Your task to perform on an android device: open app "McDonald's" (install if not already installed) Image 0: 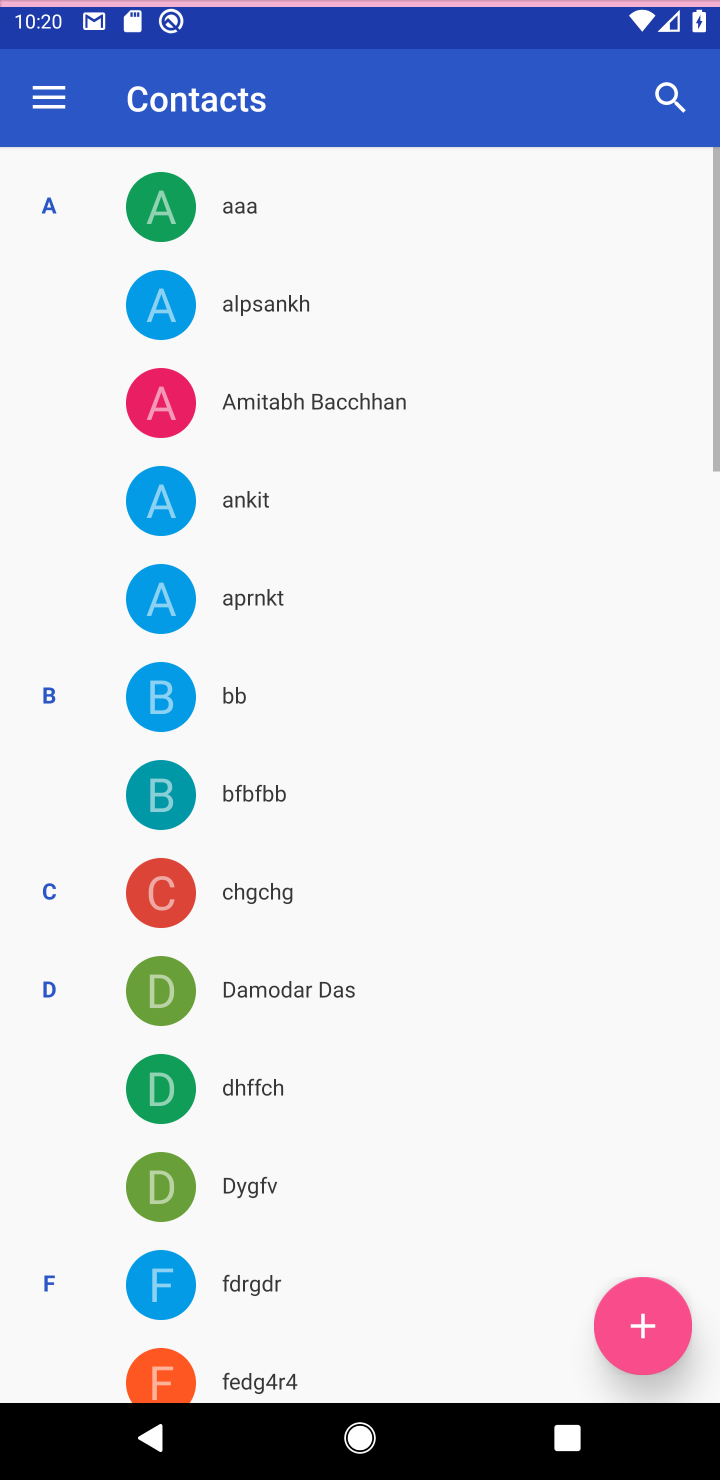
Step 0: press home button
Your task to perform on an android device: open app "McDonald's" (install if not already installed) Image 1: 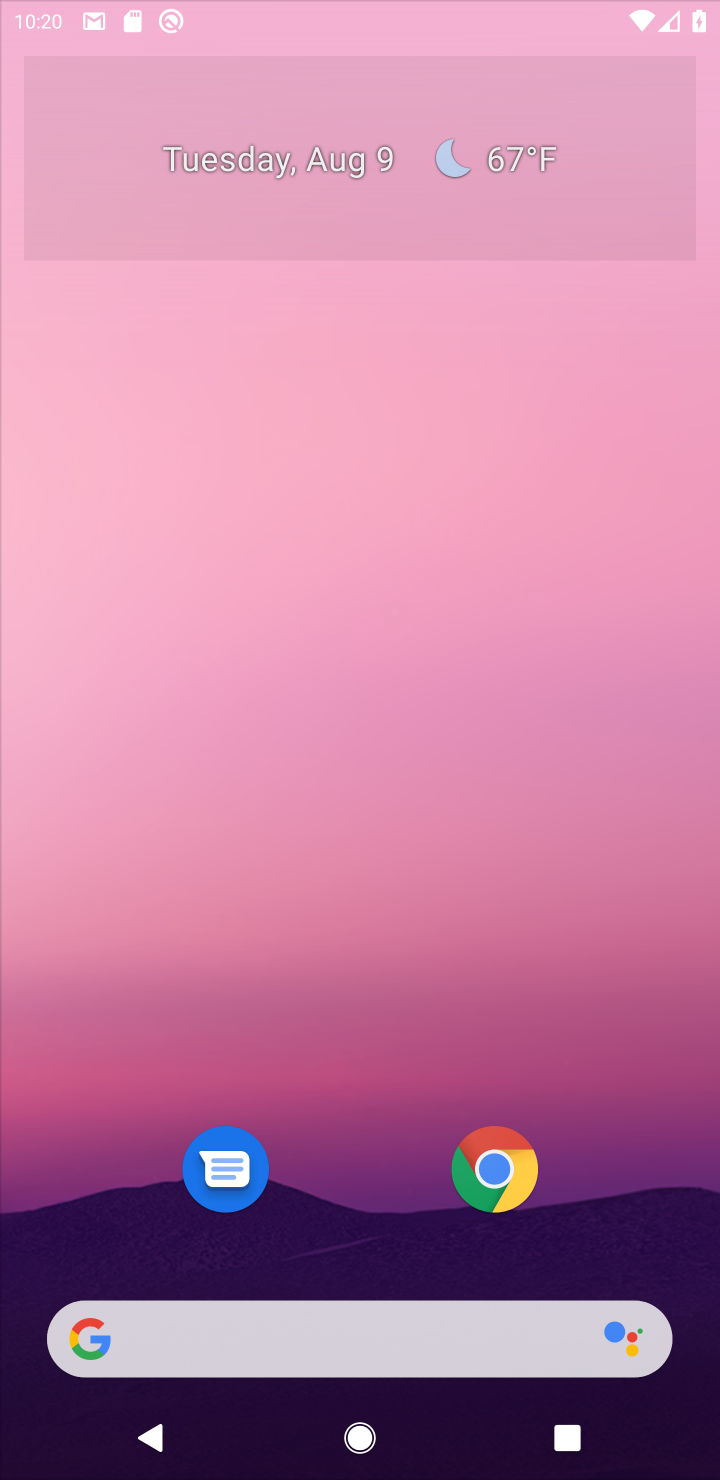
Step 1: press home button
Your task to perform on an android device: open app "McDonald's" (install if not already installed) Image 2: 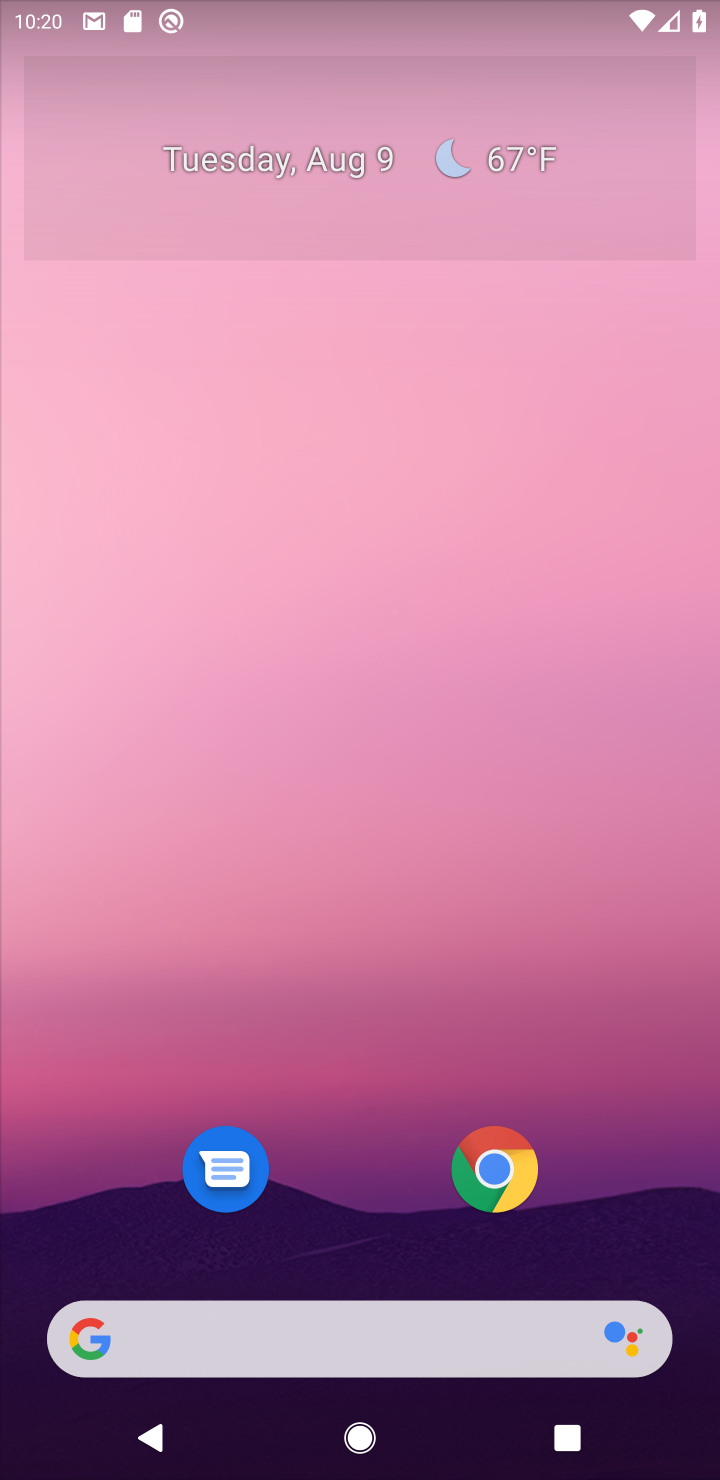
Step 2: drag from (620, 1120) to (597, 122)
Your task to perform on an android device: open app "McDonald's" (install if not already installed) Image 3: 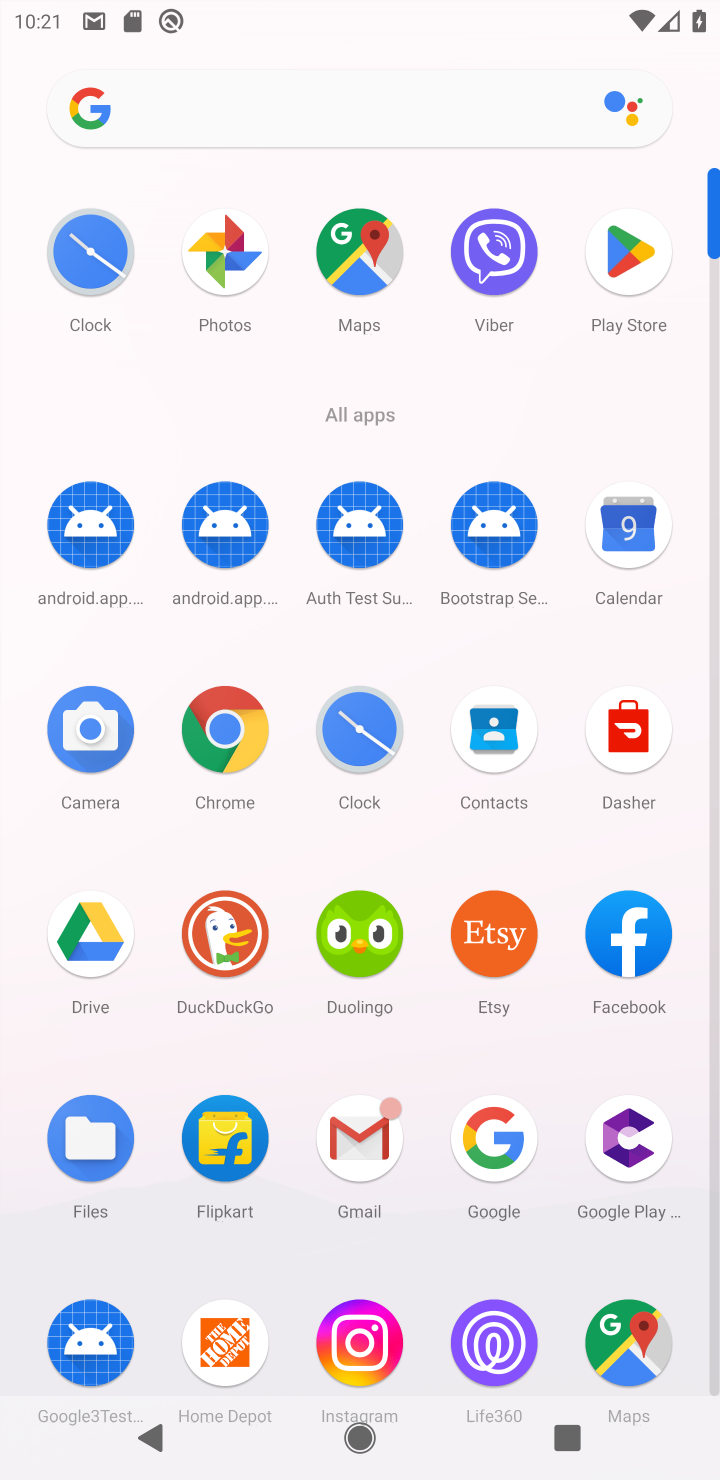
Step 3: click (615, 246)
Your task to perform on an android device: open app "McDonald's" (install if not already installed) Image 4: 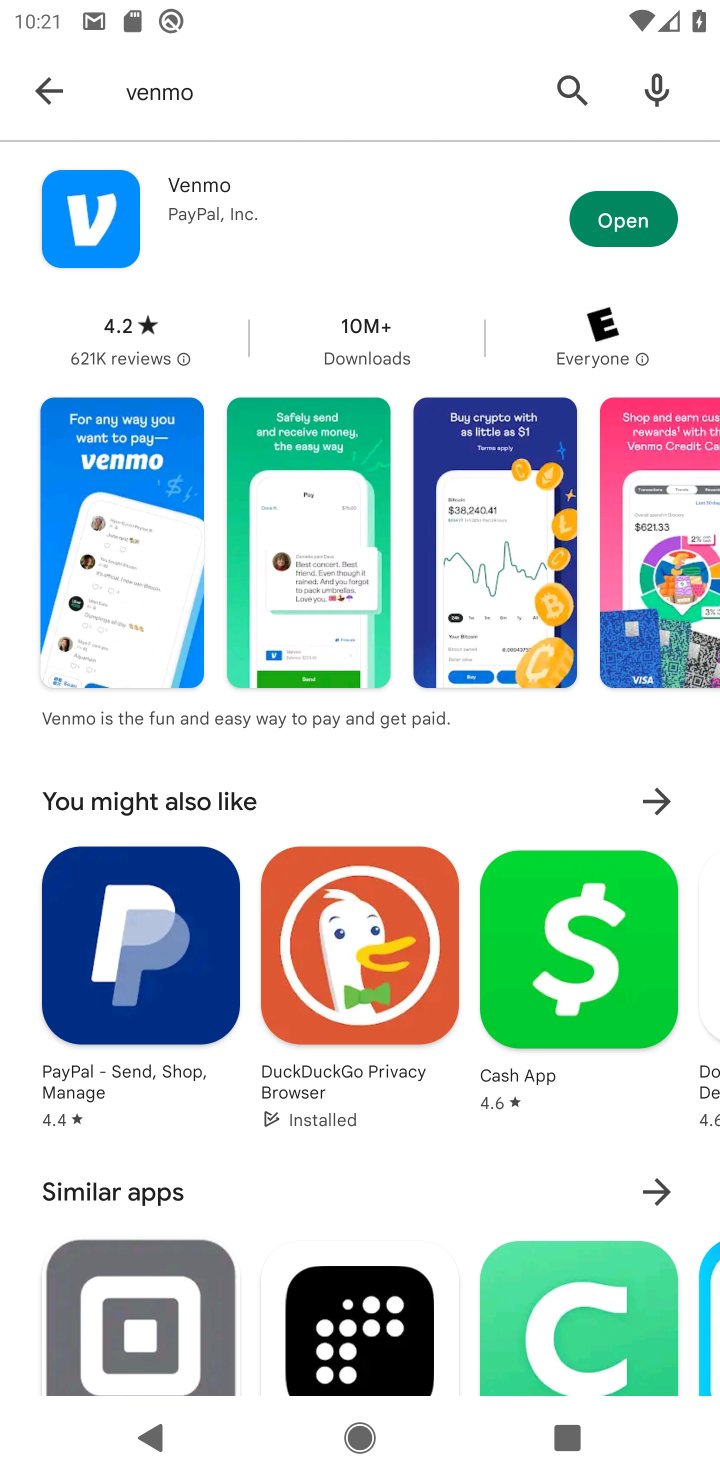
Step 4: click (570, 91)
Your task to perform on an android device: open app "McDonald's" (install if not already installed) Image 5: 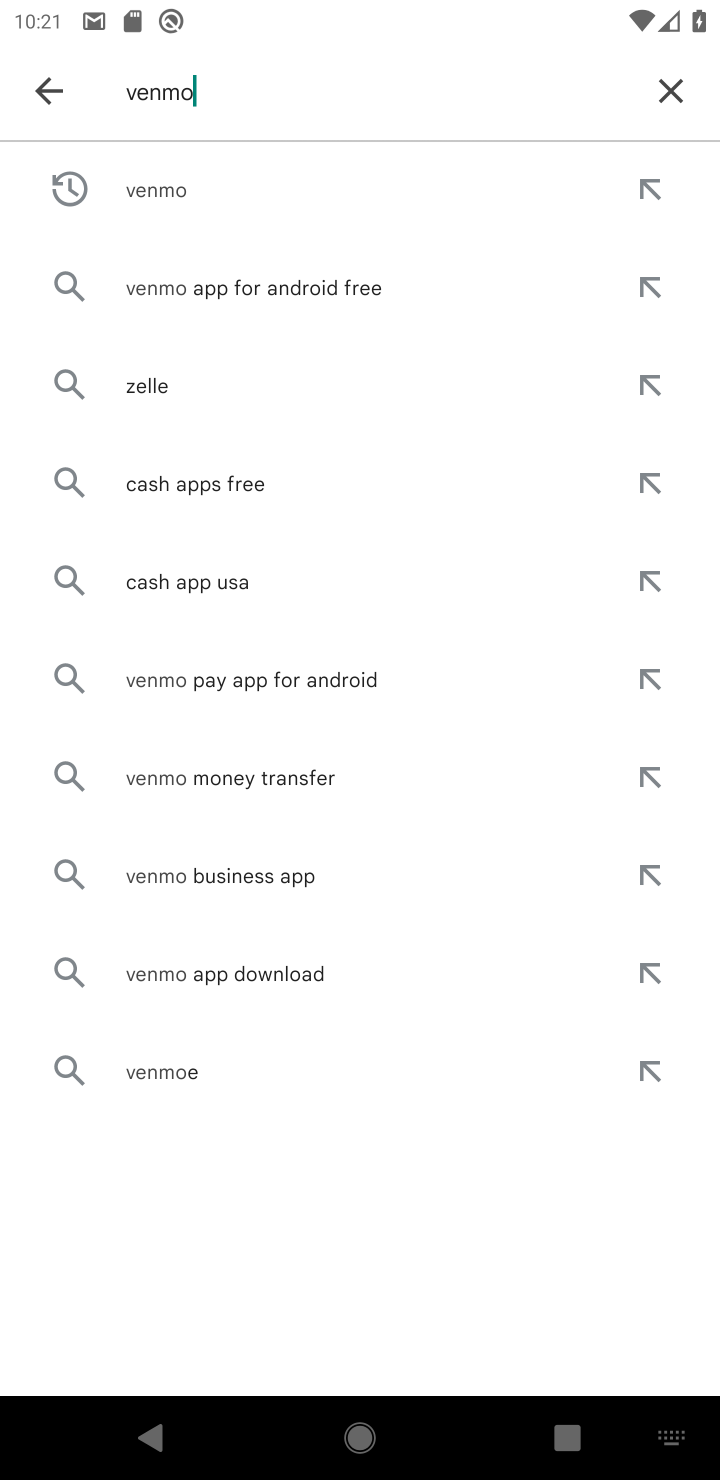
Step 5: click (670, 93)
Your task to perform on an android device: open app "McDonald's" (install if not already installed) Image 6: 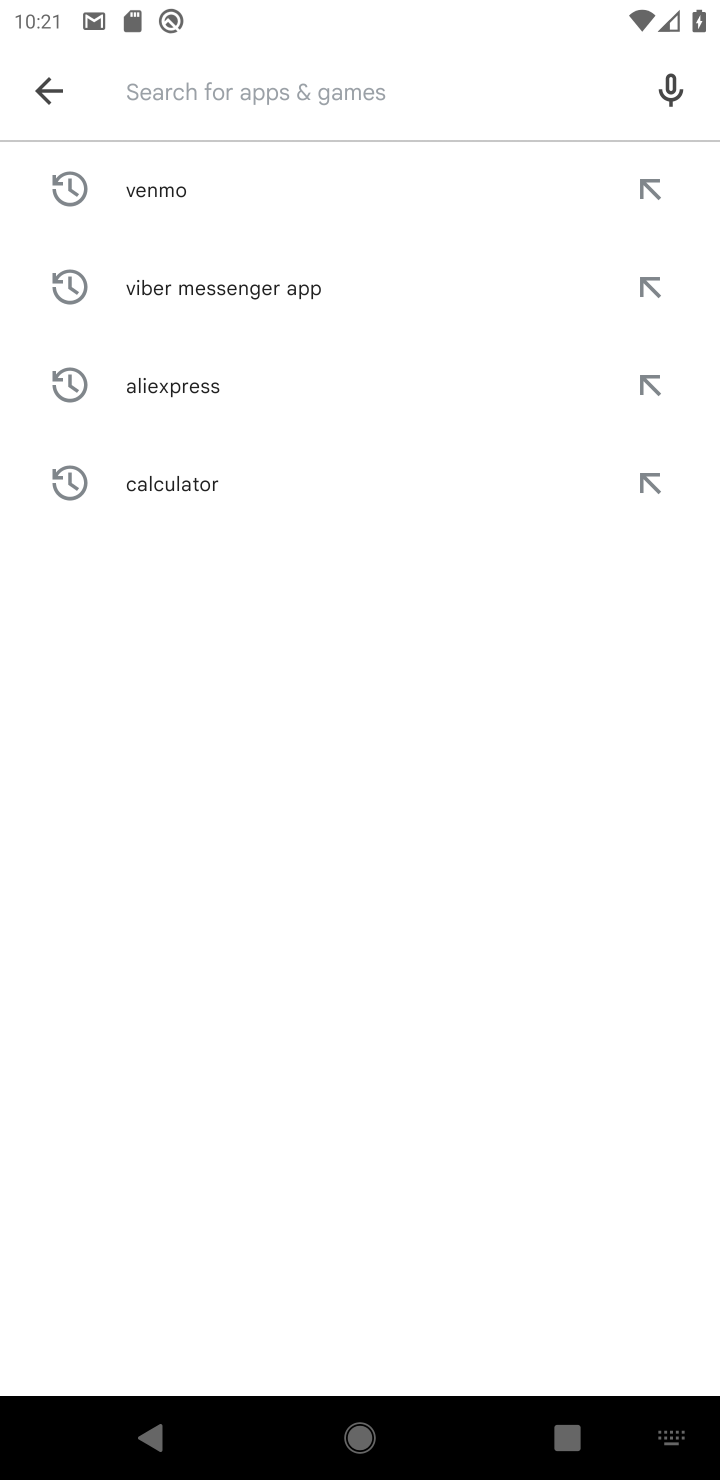
Step 6: type "mcdonalds"
Your task to perform on an android device: open app "McDonald's" (install if not already installed) Image 7: 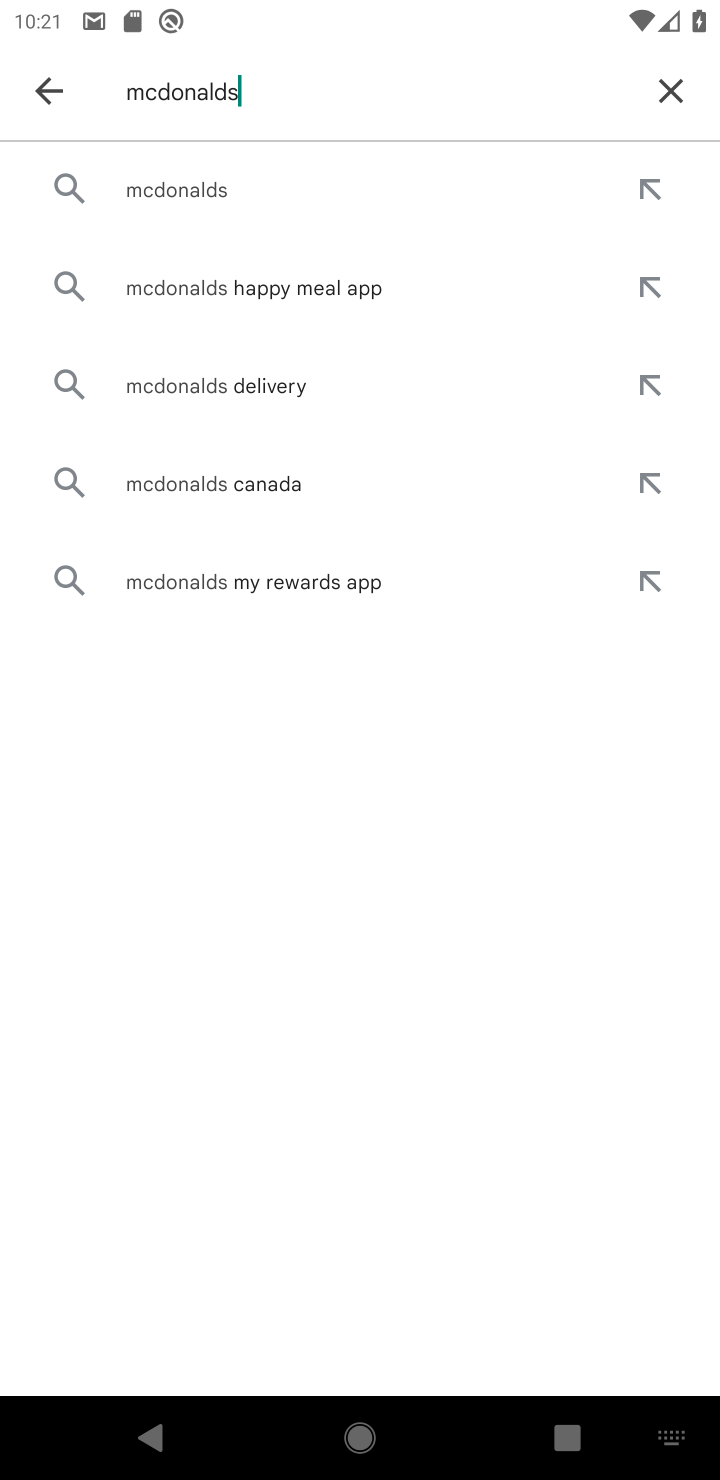
Step 7: click (277, 180)
Your task to perform on an android device: open app "McDonald's" (install if not already installed) Image 8: 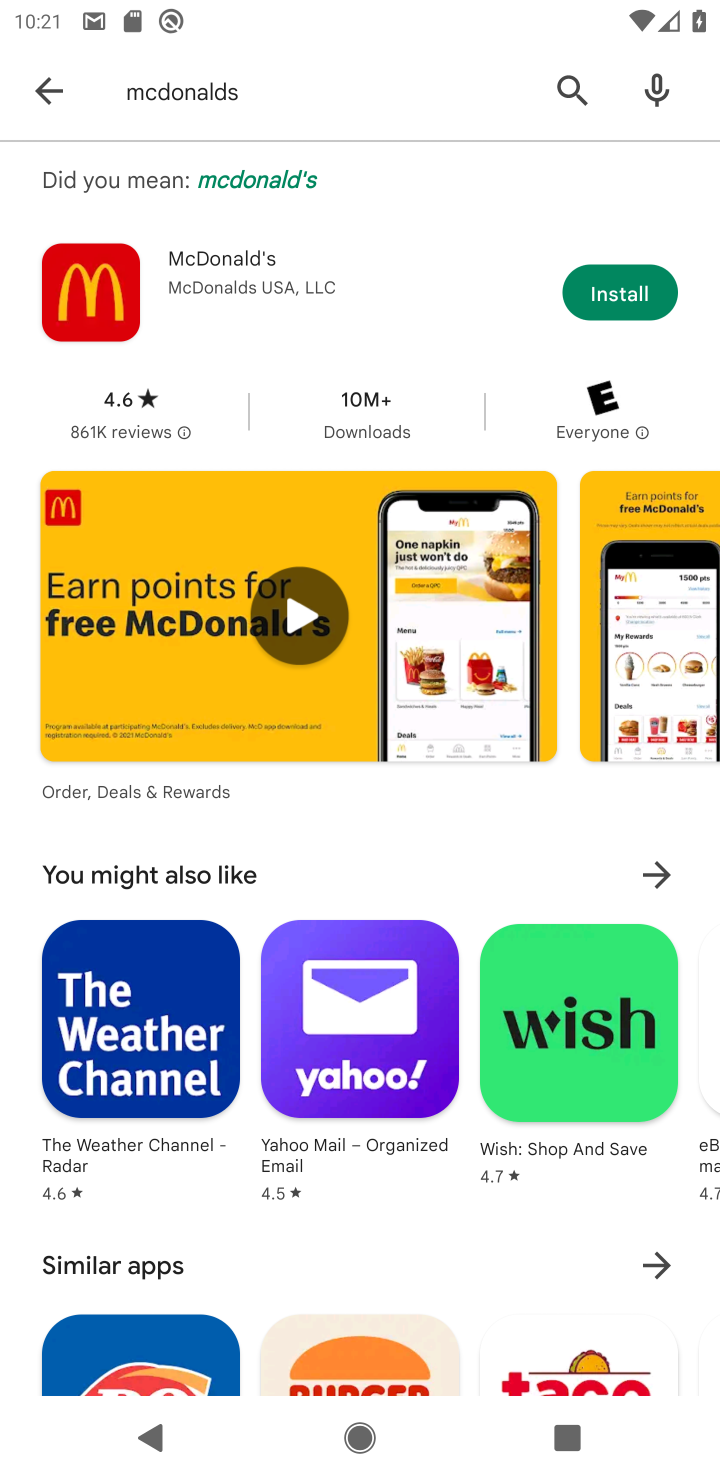
Step 8: click (595, 291)
Your task to perform on an android device: open app "McDonald's" (install if not already installed) Image 9: 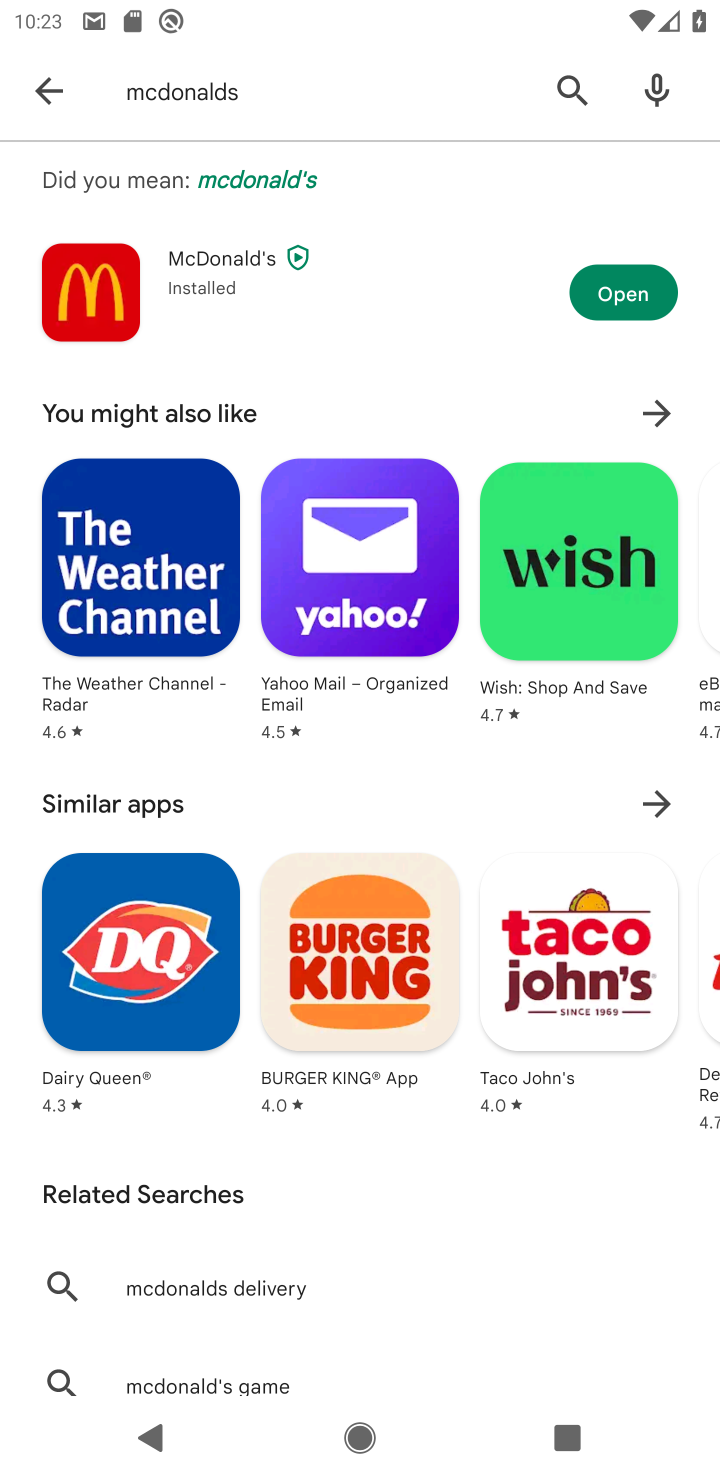
Step 9: task complete